Your task to perform on an android device: toggle translation in the chrome app Image 0: 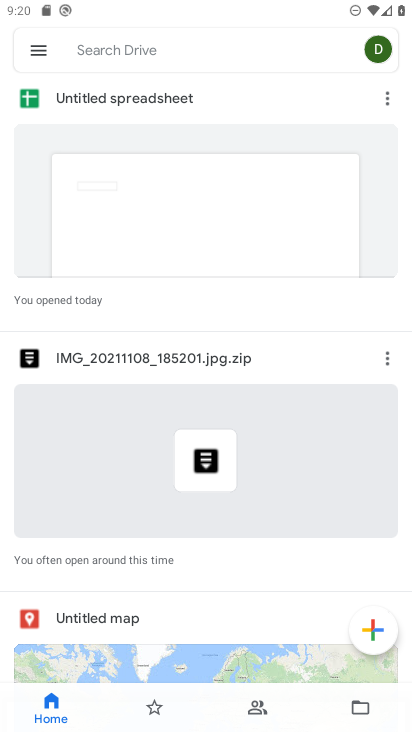
Step 0: press home button
Your task to perform on an android device: toggle translation in the chrome app Image 1: 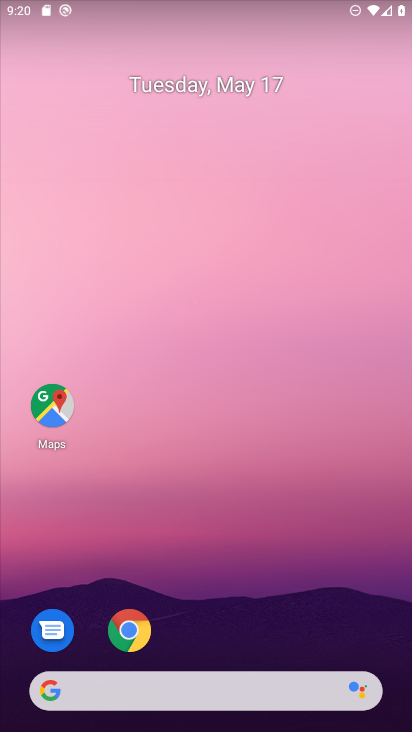
Step 1: drag from (321, 627) to (316, 167)
Your task to perform on an android device: toggle translation in the chrome app Image 2: 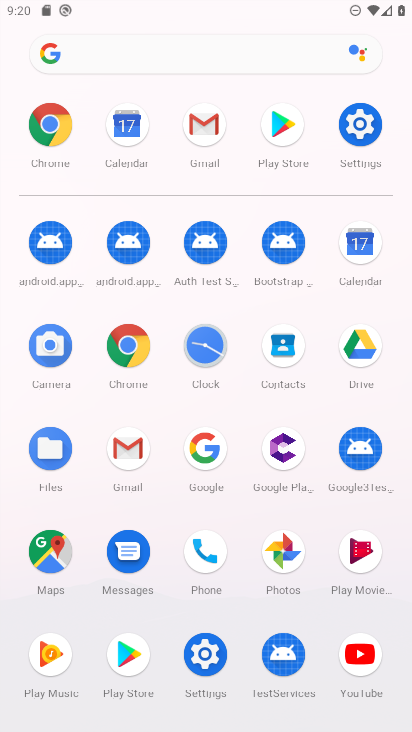
Step 2: click (131, 348)
Your task to perform on an android device: toggle translation in the chrome app Image 3: 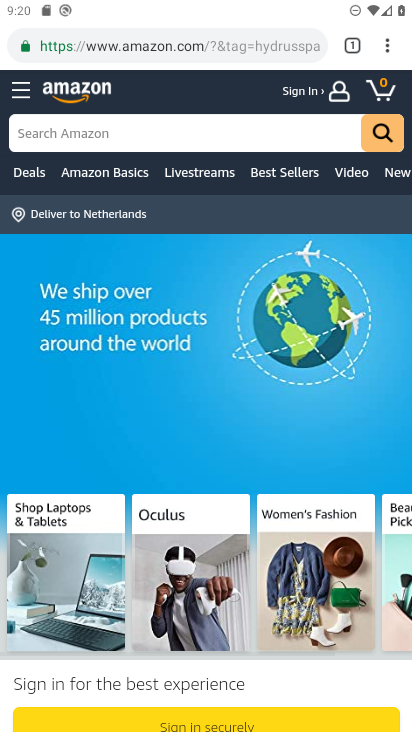
Step 3: click (130, 347)
Your task to perform on an android device: toggle translation in the chrome app Image 4: 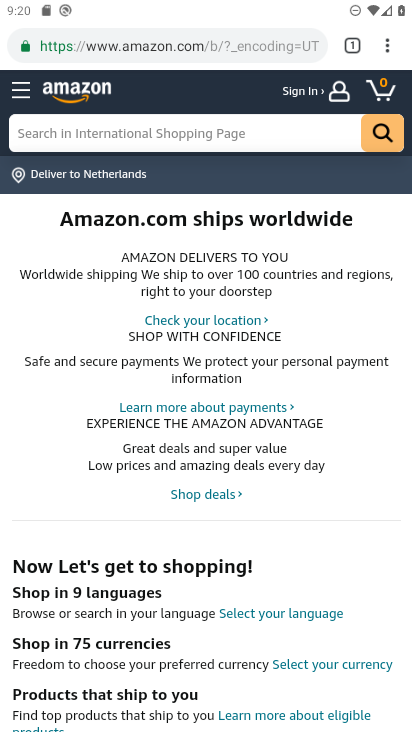
Step 4: click (387, 48)
Your task to perform on an android device: toggle translation in the chrome app Image 5: 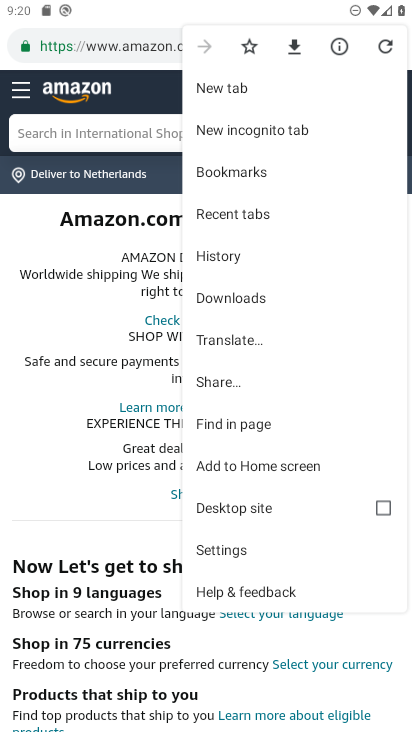
Step 5: click (242, 555)
Your task to perform on an android device: toggle translation in the chrome app Image 6: 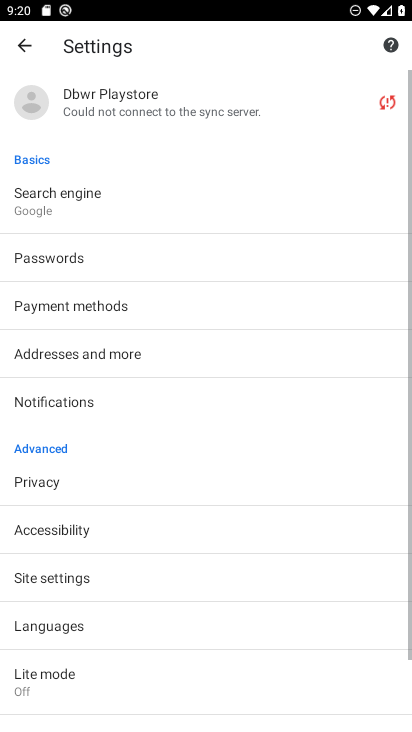
Step 6: drag from (289, 607) to (280, 408)
Your task to perform on an android device: toggle translation in the chrome app Image 7: 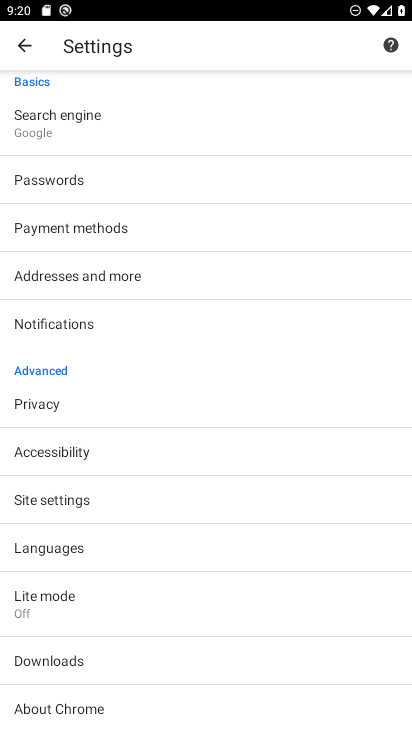
Step 7: drag from (271, 613) to (256, 471)
Your task to perform on an android device: toggle translation in the chrome app Image 8: 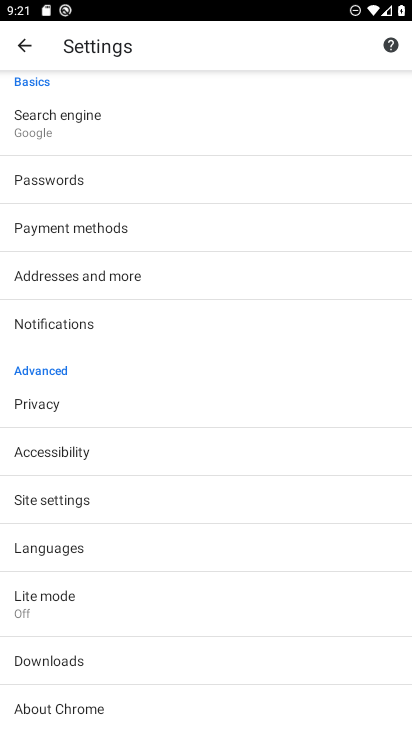
Step 8: drag from (263, 295) to (258, 408)
Your task to perform on an android device: toggle translation in the chrome app Image 9: 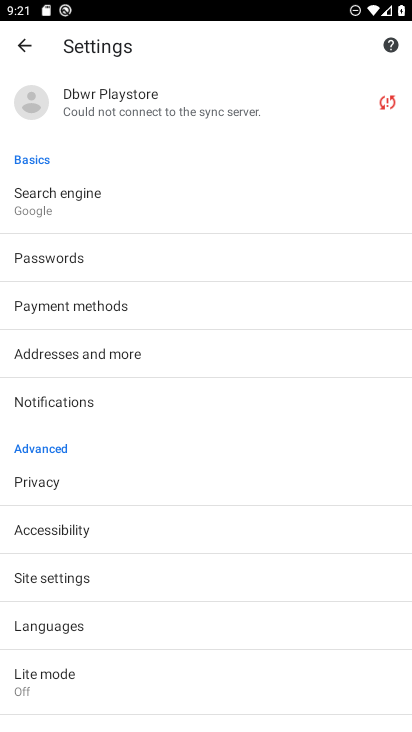
Step 9: drag from (252, 254) to (260, 493)
Your task to perform on an android device: toggle translation in the chrome app Image 10: 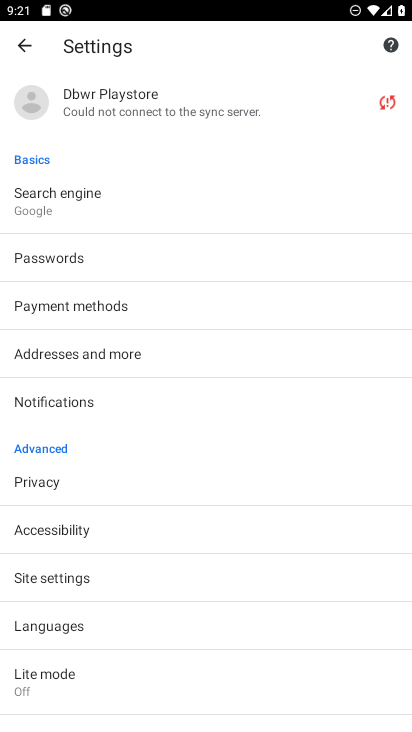
Step 10: drag from (264, 558) to (245, 374)
Your task to perform on an android device: toggle translation in the chrome app Image 11: 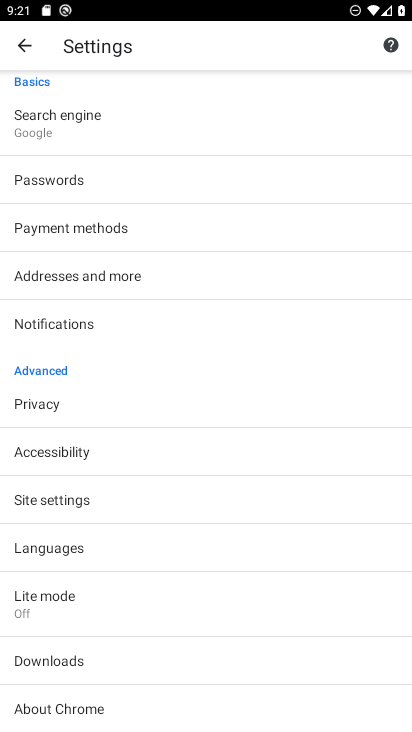
Step 11: click (235, 549)
Your task to perform on an android device: toggle translation in the chrome app Image 12: 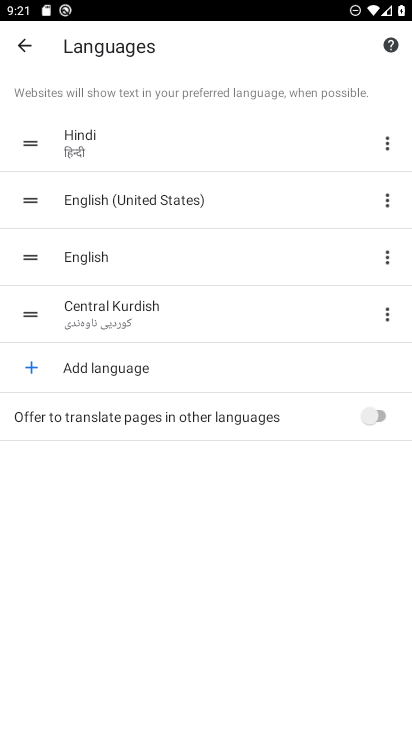
Step 12: click (358, 416)
Your task to perform on an android device: toggle translation in the chrome app Image 13: 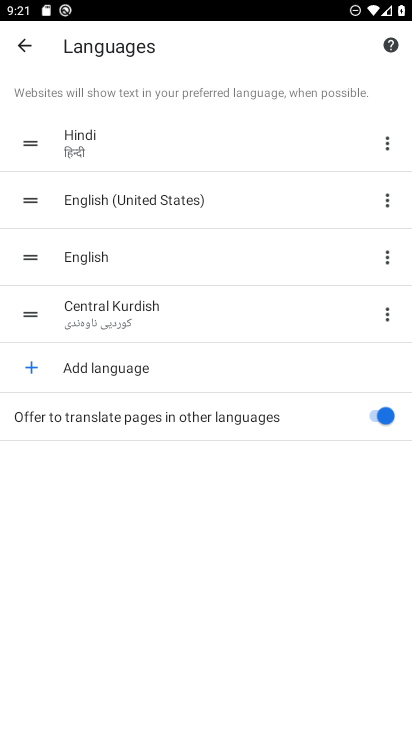
Step 13: task complete